Your task to perform on an android device: Open the web browser Image 0: 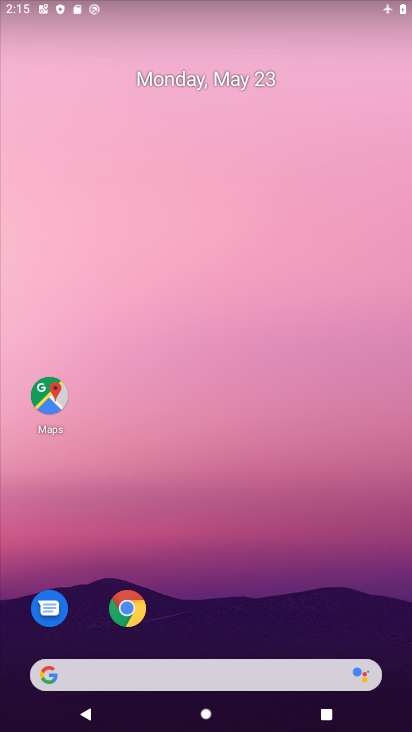
Step 0: click (207, 680)
Your task to perform on an android device: Open the web browser Image 1: 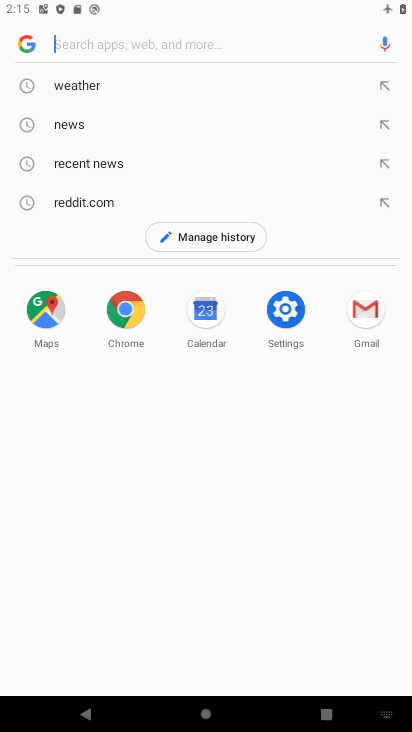
Step 1: task complete